Your task to perform on an android device: turn smart compose on in the gmail app Image 0: 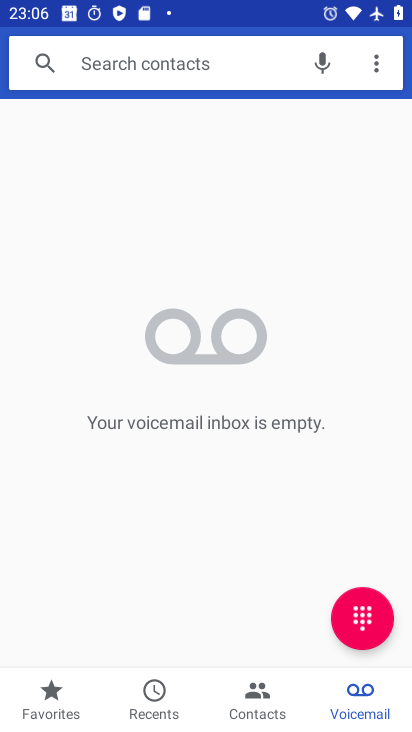
Step 0: press home button
Your task to perform on an android device: turn smart compose on in the gmail app Image 1: 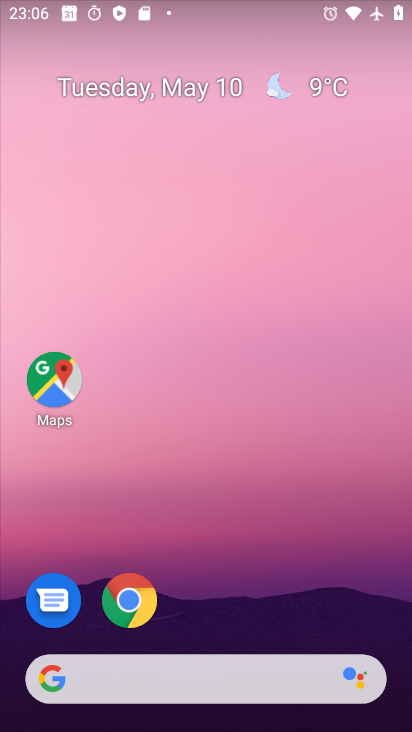
Step 1: drag from (353, 541) to (411, 436)
Your task to perform on an android device: turn smart compose on in the gmail app Image 2: 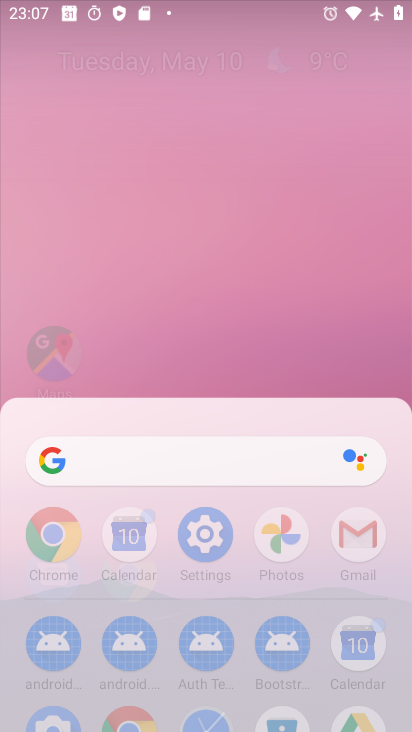
Step 2: drag from (365, 374) to (410, 326)
Your task to perform on an android device: turn smart compose on in the gmail app Image 3: 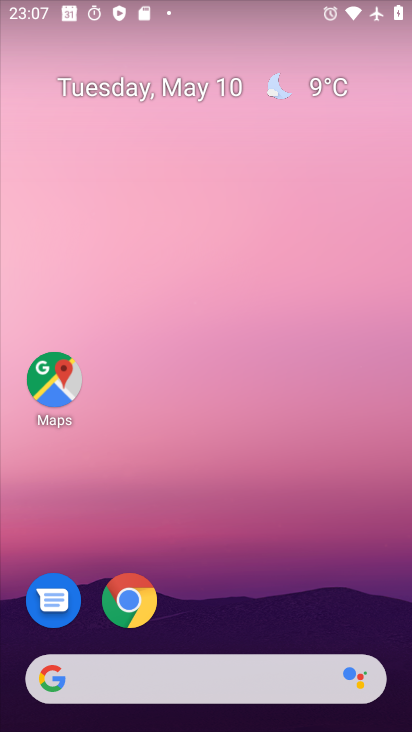
Step 3: drag from (299, 596) to (404, 172)
Your task to perform on an android device: turn smart compose on in the gmail app Image 4: 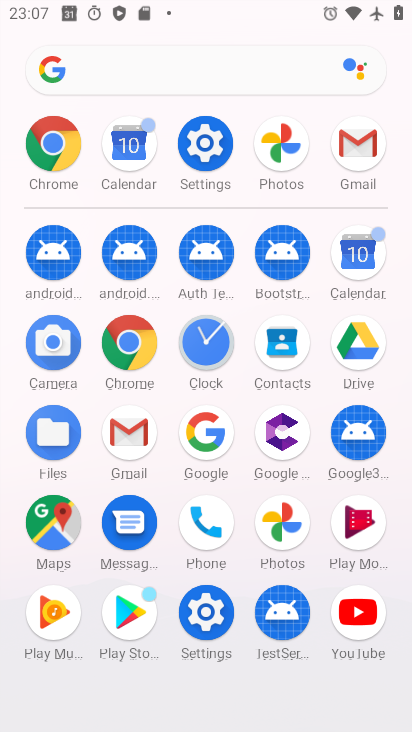
Step 4: click (370, 138)
Your task to perform on an android device: turn smart compose on in the gmail app Image 5: 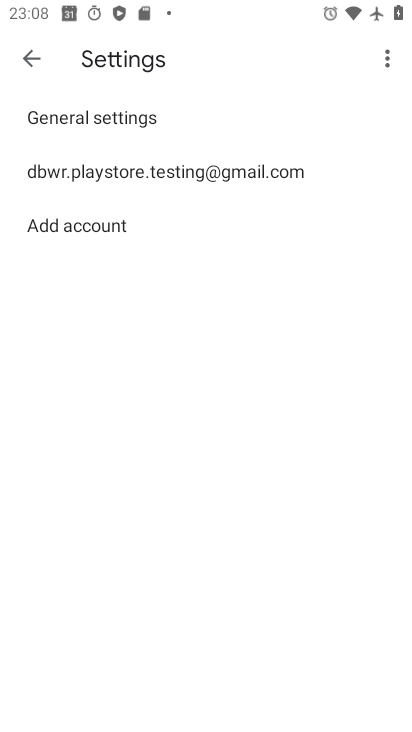
Step 5: click (28, 59)
Your task to perform on an android device: turn smart compose on in the gmail app Image 6: 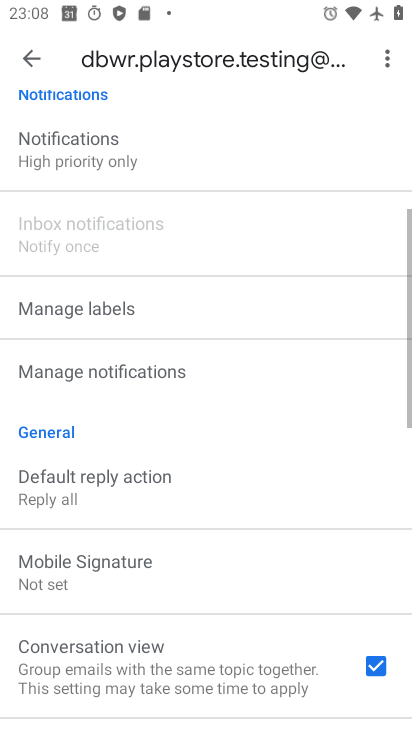
Step 6: task complete